Your task to perform on an android device: snooze an email in the gmail app Image 0: 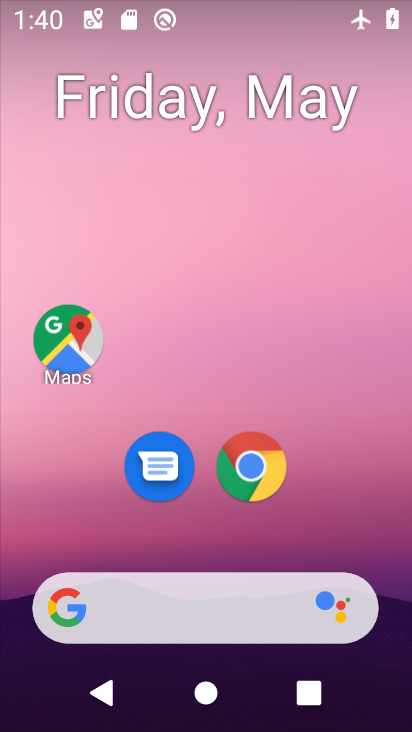
Step 0: drag from (340, 484) to (407, 76)
Your task to perform on an android device: snooze an email in the gmail app Image 1: 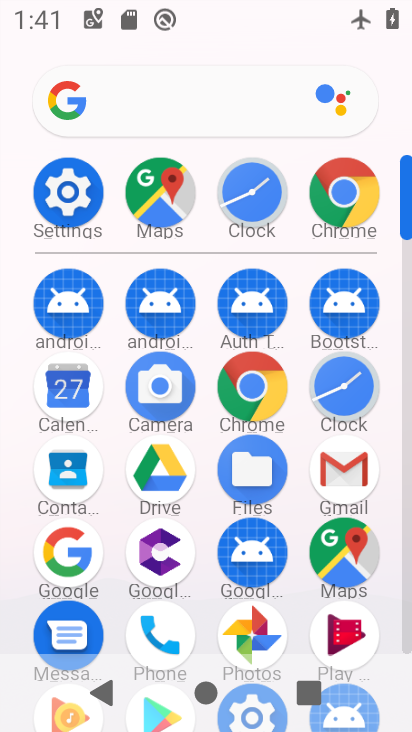
Step 1: click (341, 456)
Your task to perform on an android device: snooze an email in the gmail app Image 2: 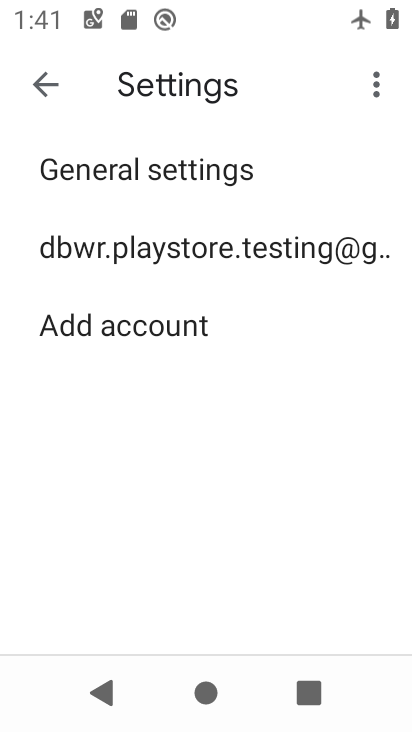
Step 2: click (58, 66)
Your task to perform on an android device: snooze an email in the gmail app Image 3: 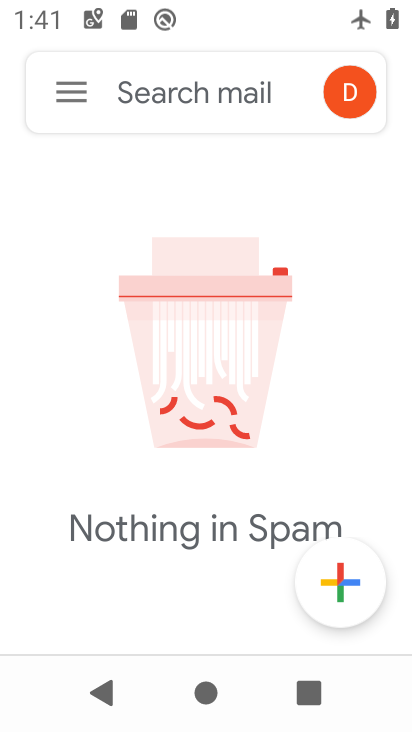
Step 3: click (76, 104)
Your task to perform on an android device: snooze an email in the gmail app Image 4: 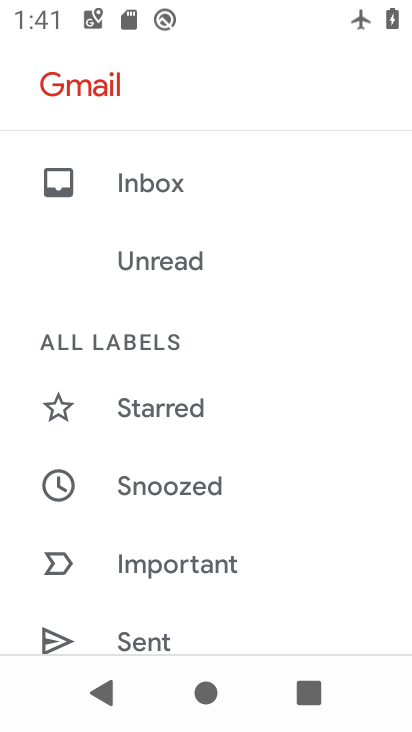
Step 4: click (169, 475)
Your task to perform on an android device: snooze an email in the gmail app Image 5: 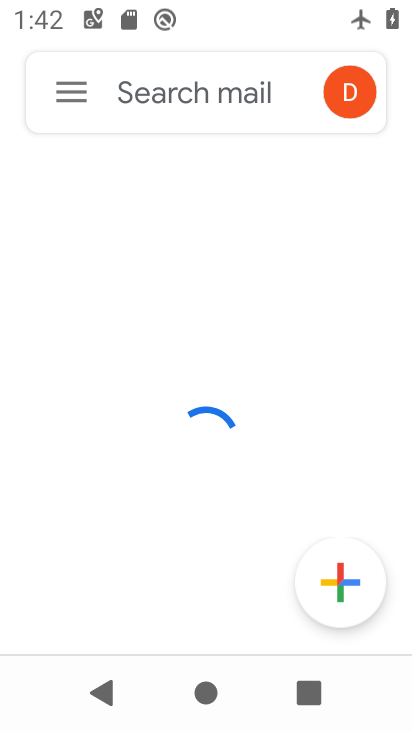
Step 5: task complete